Your task to perform on an android device: Open Chrome and go to settings Image 0: 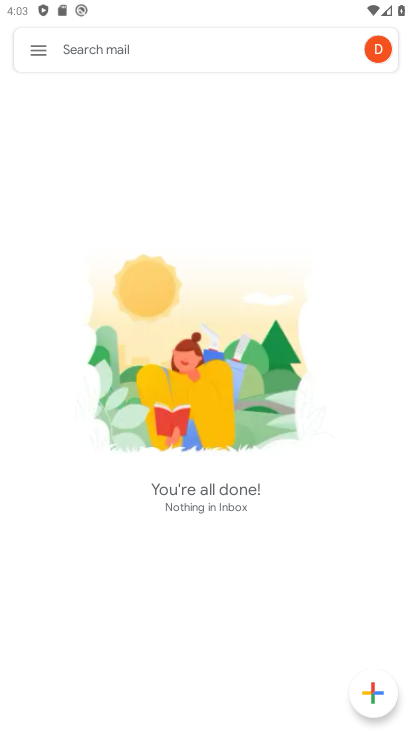
Step 0: press back button
Your task to perform on an android device: Open Chrome and go to settings Image 1: 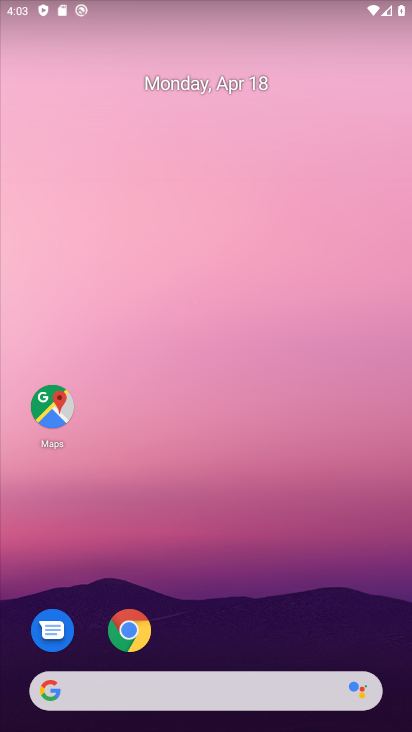
Step 1: click (129, 629)
Your task to perform on an android device: Open Chrome and go to settings Image 2: 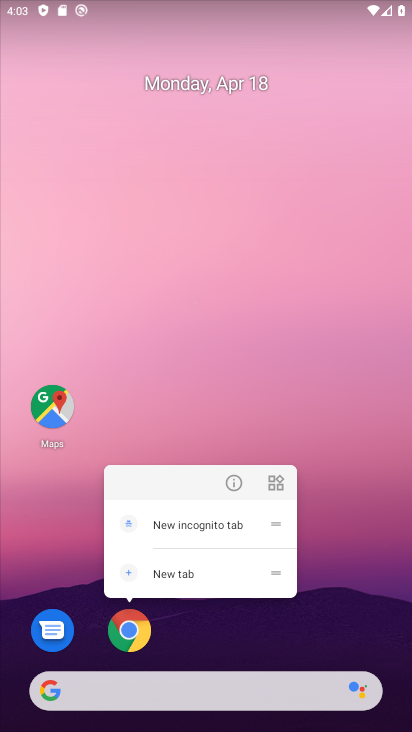
Step 2: click (129, 629)
Your task to perform on an android device: Open Chrome and go to settings Image 3: 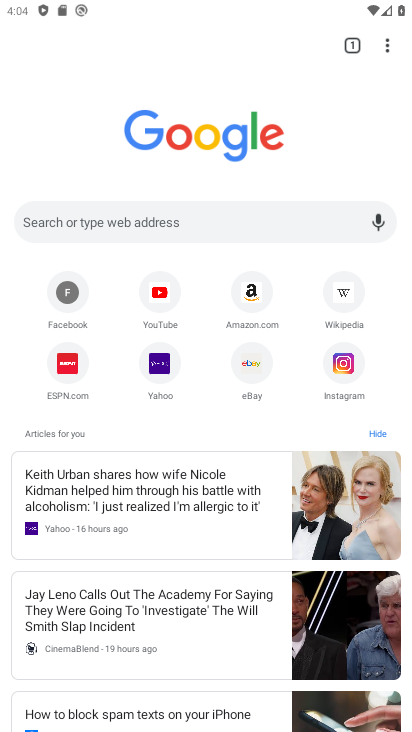
Step 3: click (387, 45)
Your task to perform on an android device: Open Chrome and go to settings Image 4: 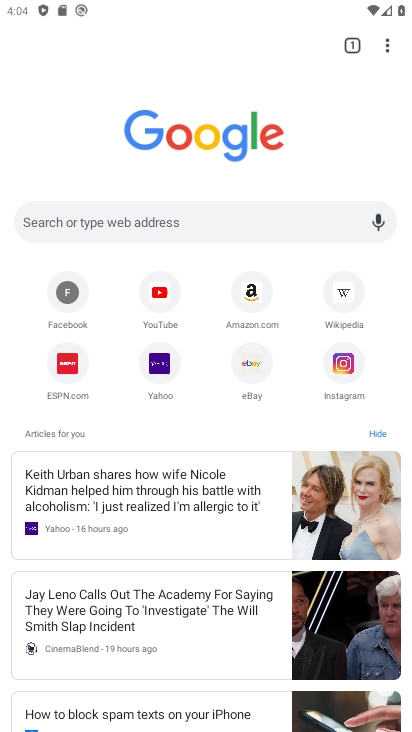
Step 4: click (387, 45)
Your task to perform on an android device: Open Chrome and go to settings Image 5: 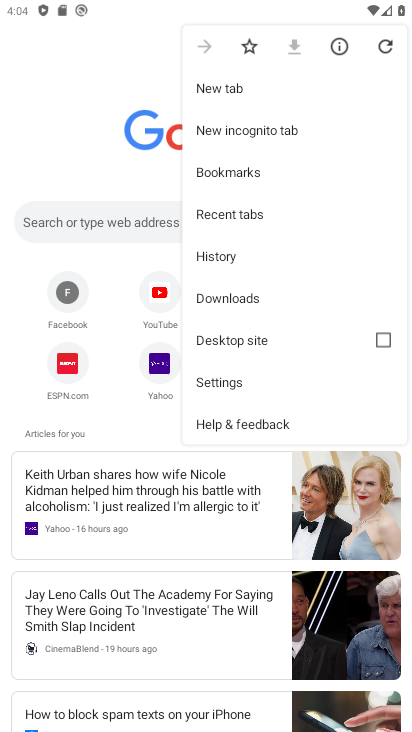
Step 5: click (234, 381)
Your task to perform on an android device: Open Chrome and go to settings Image 6: 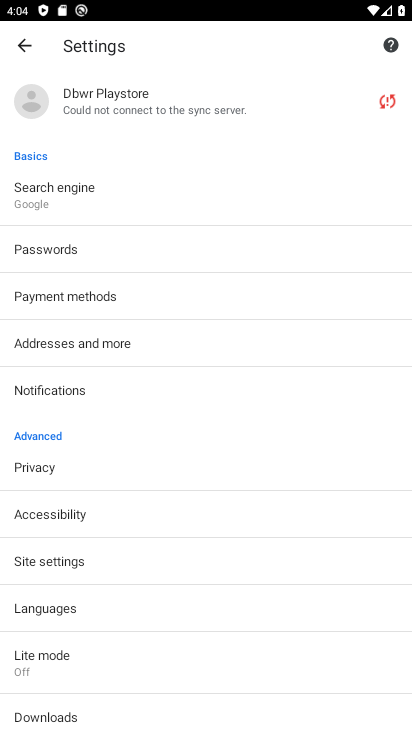
Step 6: task complete